Your task to perform on an android device: open app "Etsy: Buy & Sell Unique Items" Image 0: 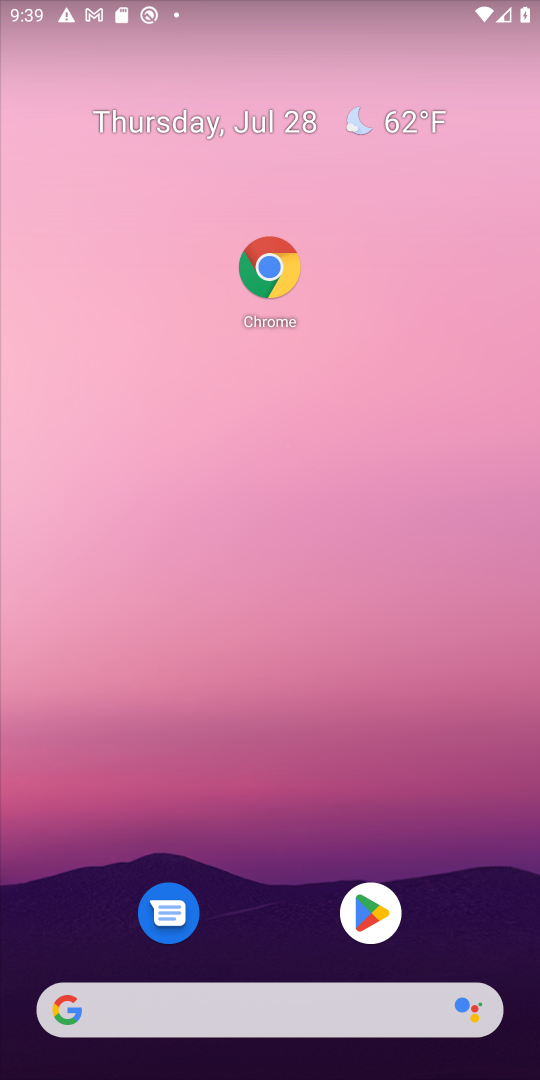
Step 0: press home button
Your task to perform on an android device: open app "Etsy: Buy & Sell Unique Items" Image 1: 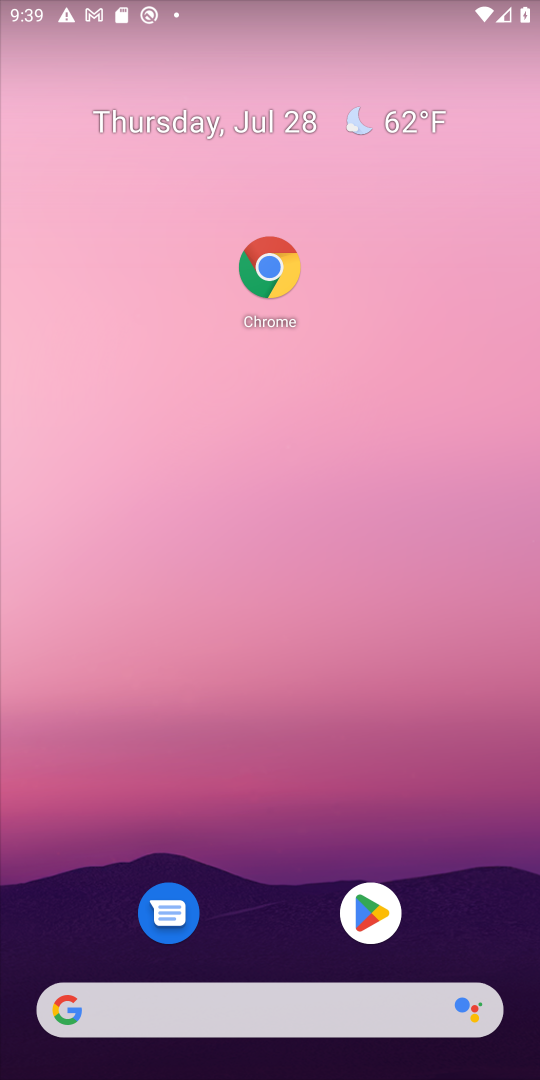
Step 1: click (369, 911)
Your task to perform on an android device: open app "Etsy: Buy & Sell Unique Items" Image 2: 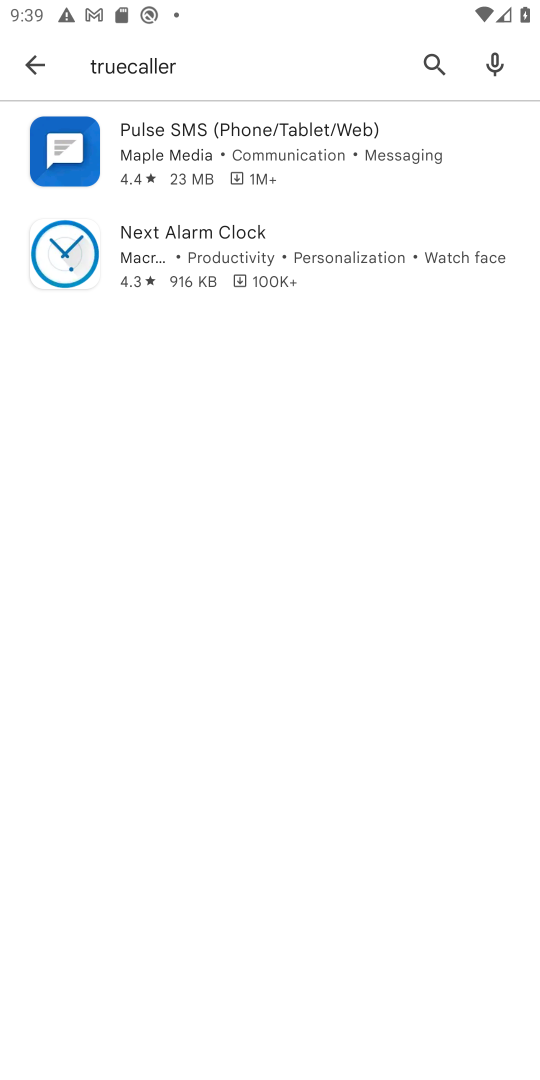
Step 2: click (429, 65)
Your task to perform on an android device: open app "Etsy: Buy & Sell Unique Items" Image 3: 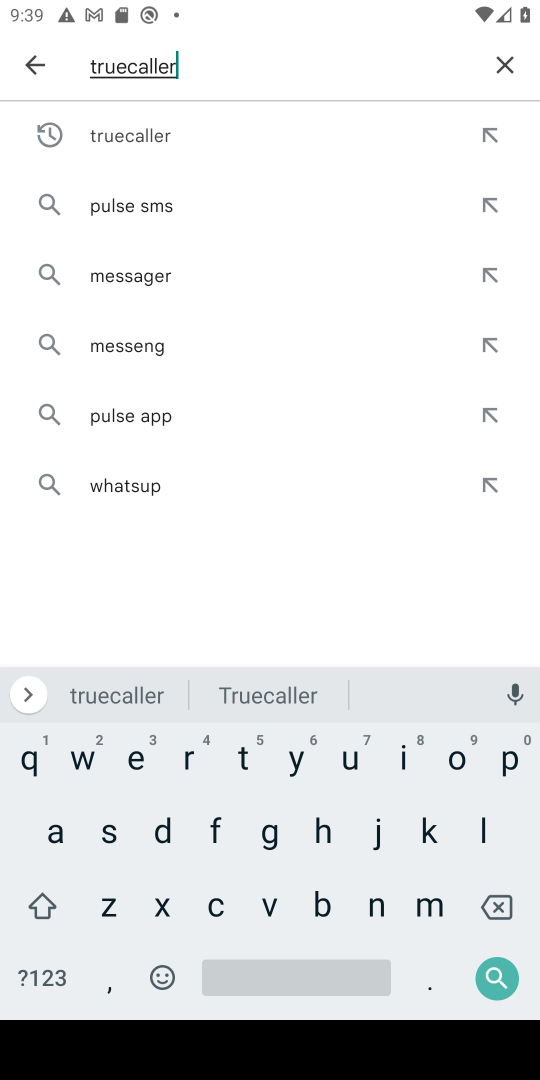
Step 3: click (497, 65)
Your task to perform on an android device: open app "Etsy: Buy & Sell Unique Items" Image 4: 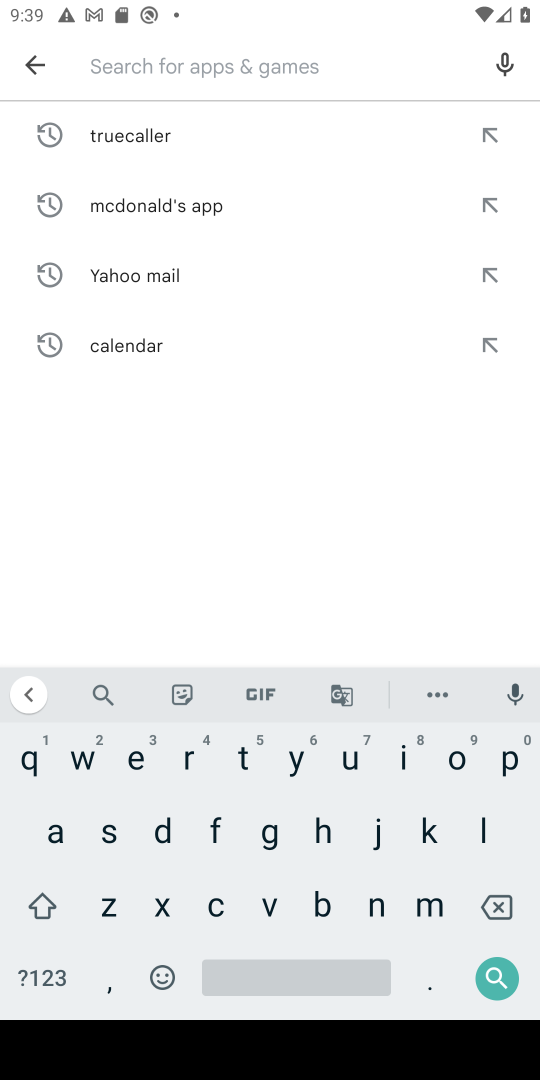
Step 4: click (132, 755)
Your task to perform on an android device: open app "Etsy: Buy & Sell Unique Items" Image 5: 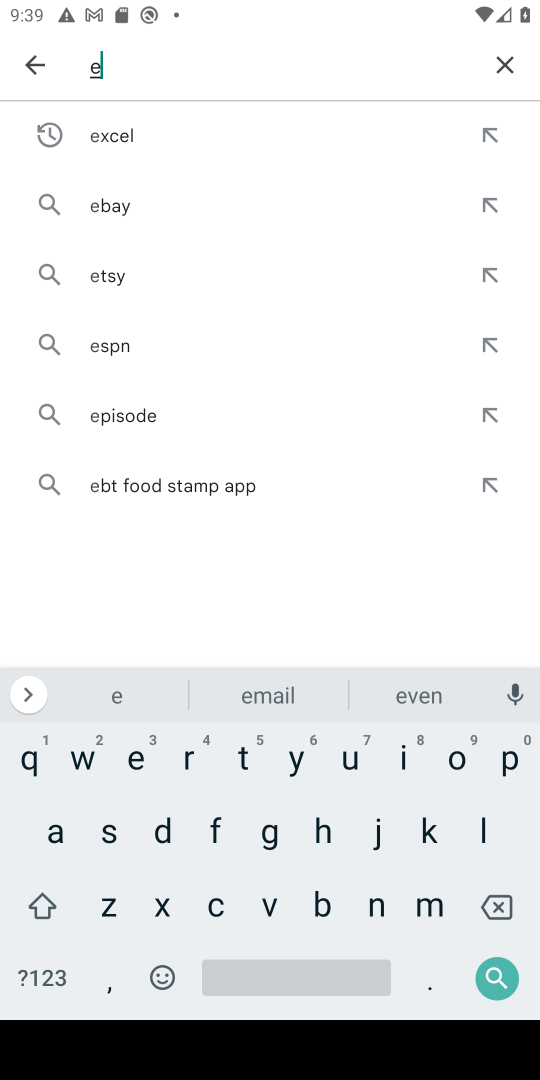
Step 5: click (243, 753)
Your task to perform on an android device: open app "Etsy: Buy & Sell Unique Items" Image 6: 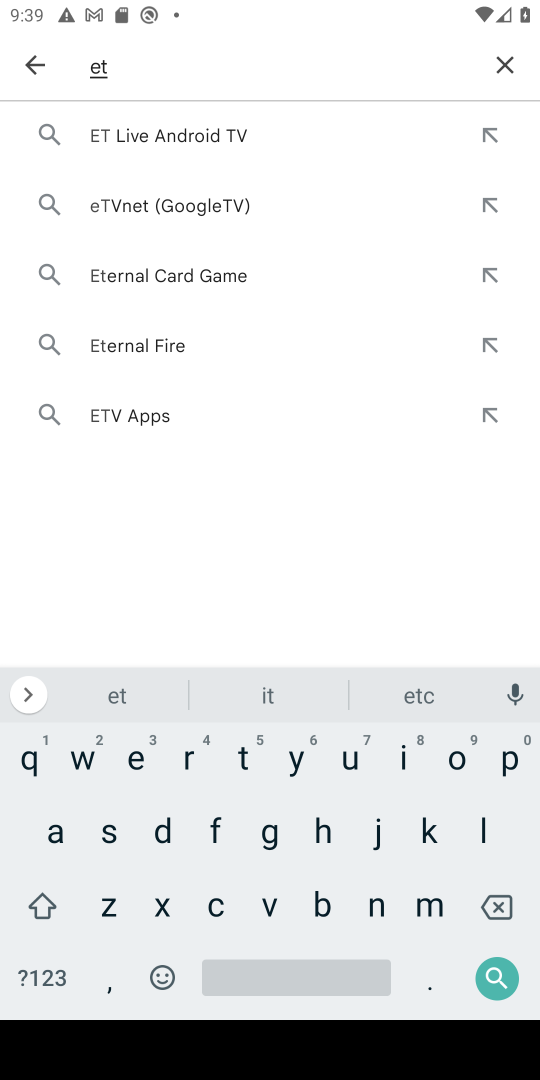
Step 6: click (104, 835)
Your task to perform on an android device: open app "Etsy: Buy & Sell Unique Items" Image 7: 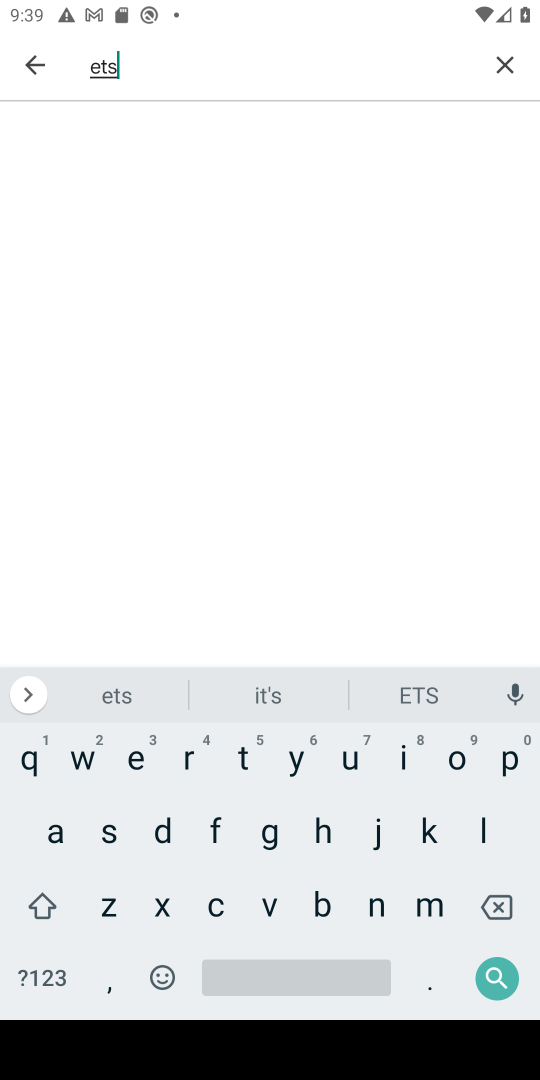
Step 7: click (297, 755)
Your task to perform on an android device: open app "Etsy: Buy & Sell Unique Items" Image 8: 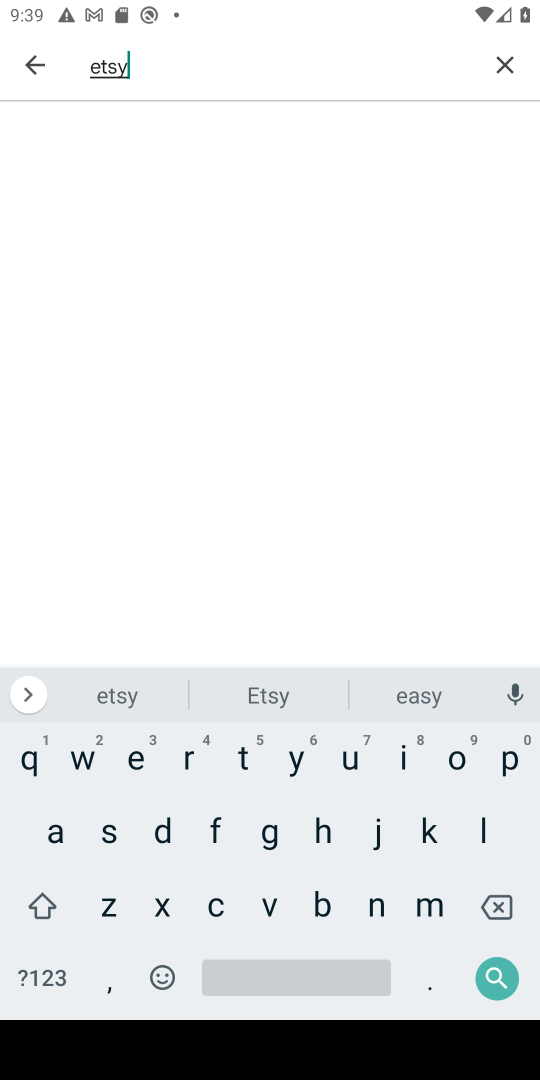
Step 8: click (495, 968)
Your task to perform on an android device: open app "Etsy: Buy & Sell Unique Items" Image 9: 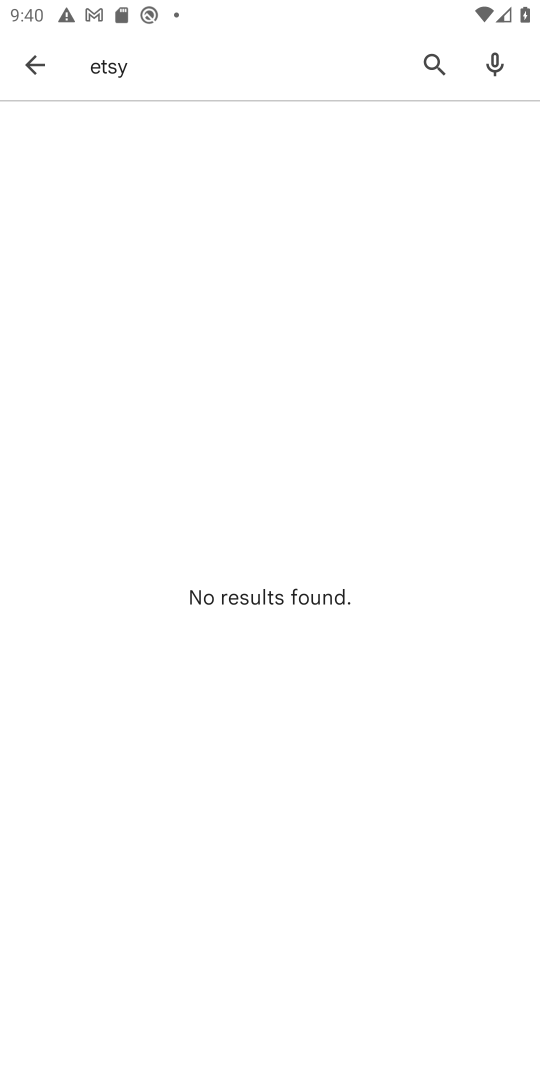
Step 9: task complete